Your task to perform on an android device: open chrome privacy settings Image 0: 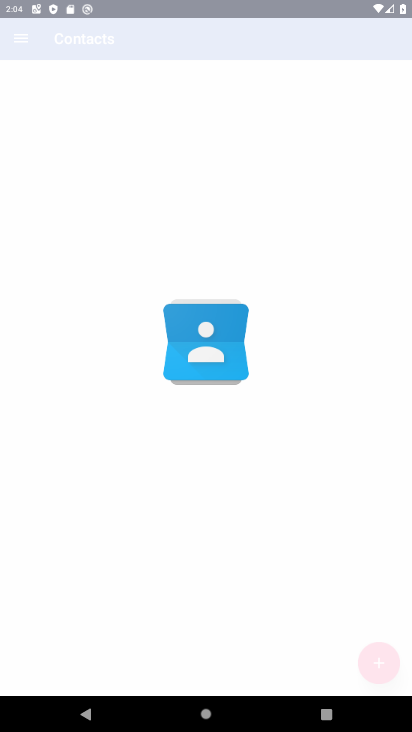
Step 0: drag from (261, 569) to (354, 19)
Your task to perform on an android device: open chrome privacy settings Image 1: 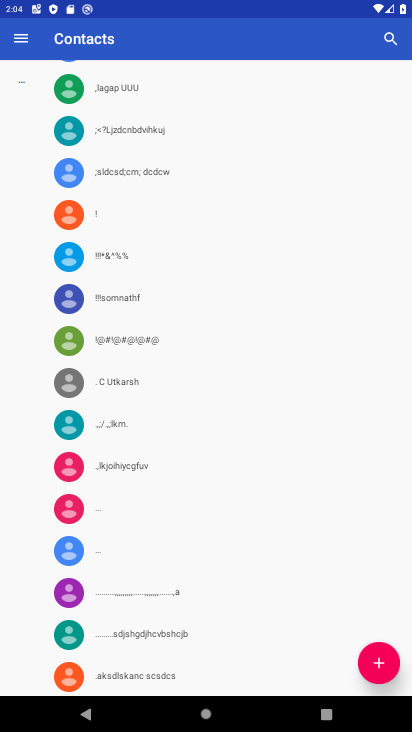
Step 1: press home button
Your task to perform on an android device: open chrome privacy settings Image 2: 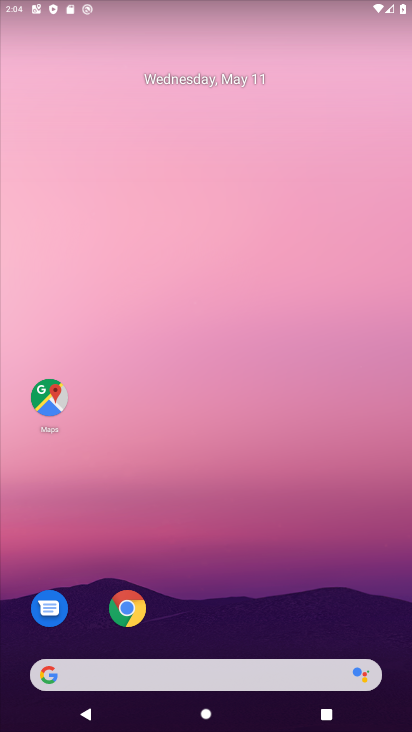
Step 2: drag from (219, 580) to (242, 209)
Your task to perform on an android device: open chrome privacy settings Image 3: 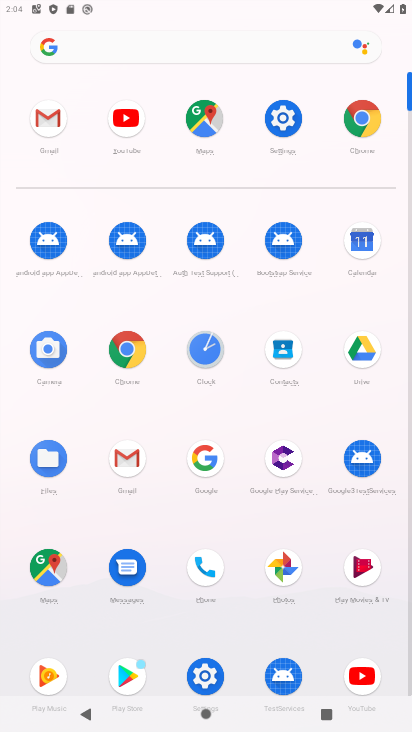
Step 3: click (288, 119)
Your task to perform on an android device: open chrome privacy settings Image 4: 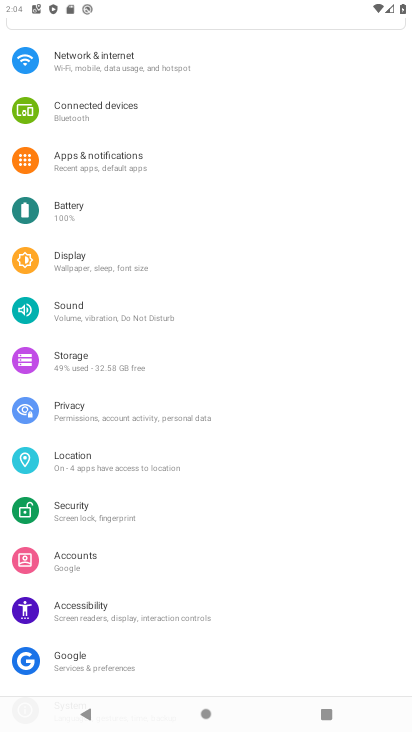
Step 4: press home button
Your task to perform on an android device: open chrome privacy settings Image 5: 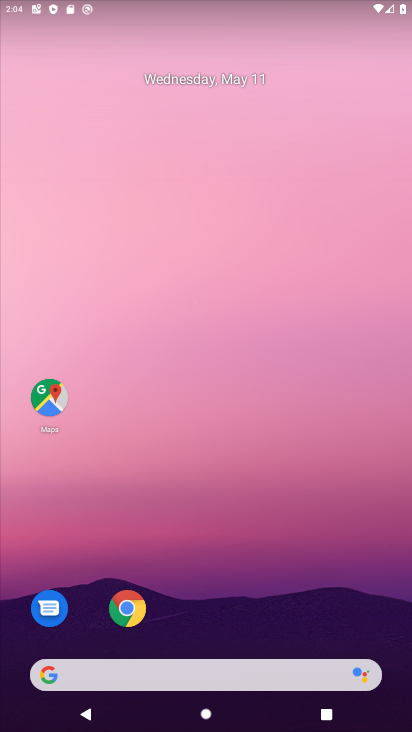
Step 5: click (130, 611)
Your task to perform on an android device: open chrome privacy settings Image 6: 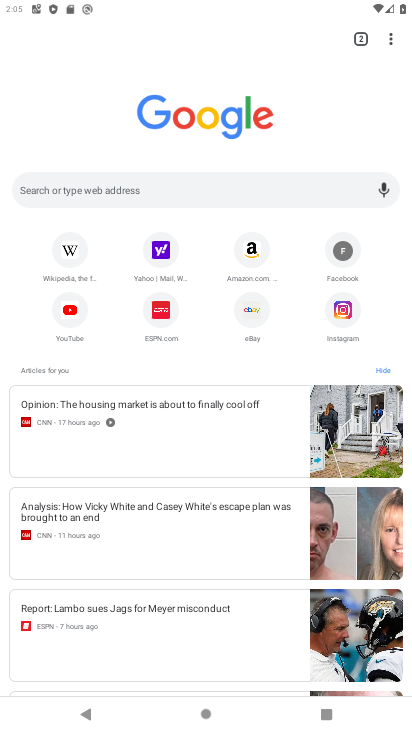
Step 6: click (381, 36)
Your task to perform on an android device: open chrome privacy settings Image 7: 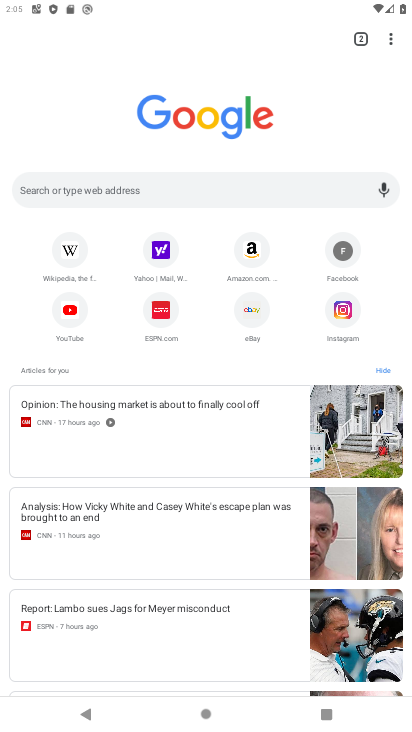
Step 7: click (392, 26)
Your task to perform on an android device: open chrome privacy settings Image 8: 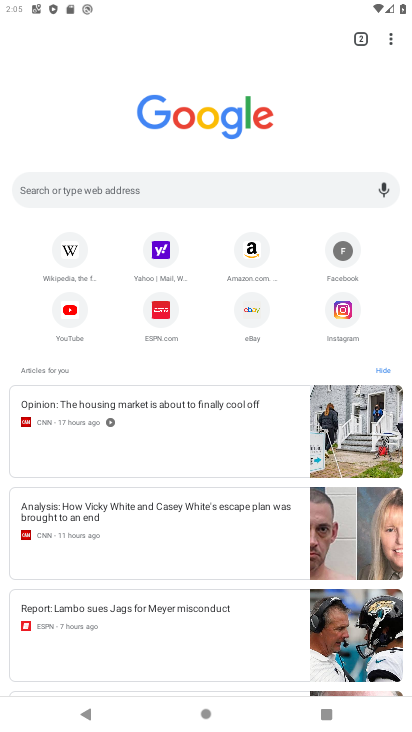
Step 8: click (390, 41)
Your task to perform on an android device: open chrome privacy settings Image 9: 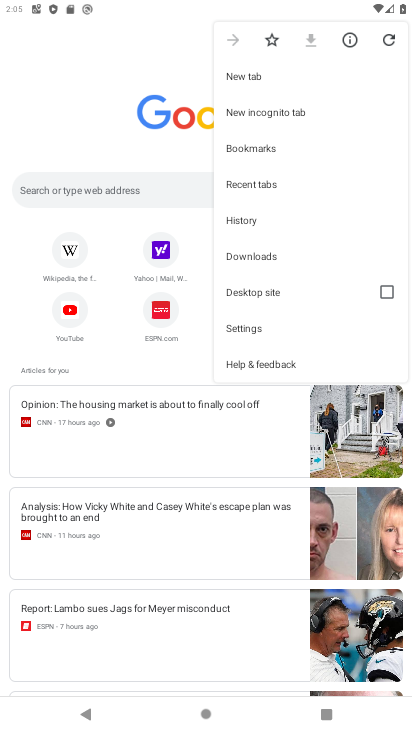
Step 9: click (332, 333)
Your task to perform on an android device: open chrome privacy settings Image 10: 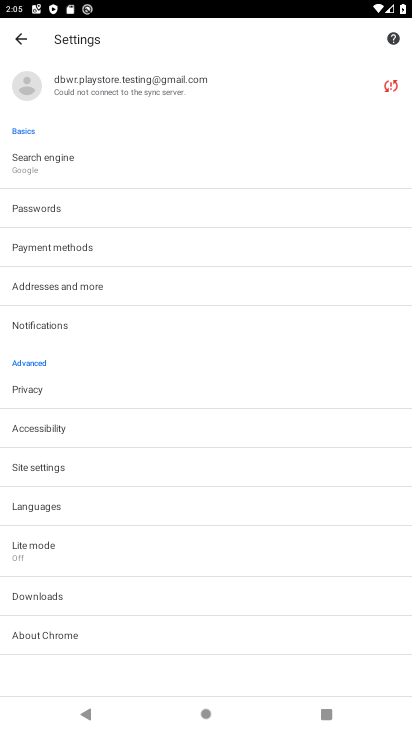
Step 10: task complete